Your task to perform on an android device: change notification settings in the gmail app Image 0: 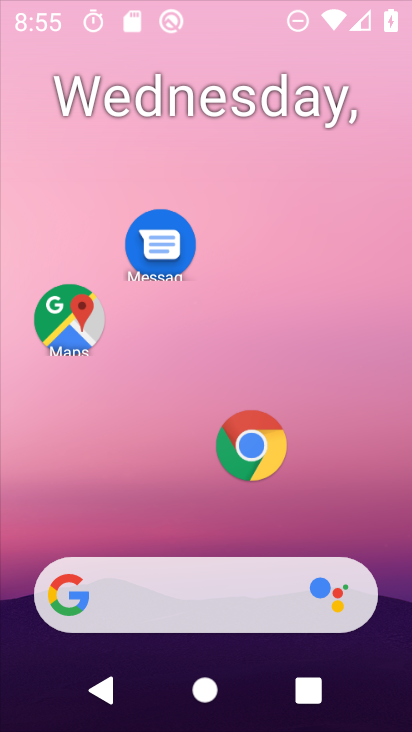
Step 0: press home button
Your task to perform on an android device: change notification settings in the gmail app Image 1: 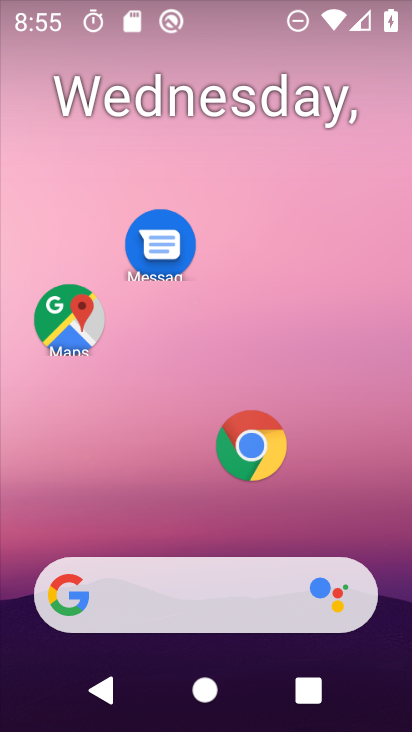
Step 1: drag from (191, 518) to (230, 47)
Your task to perform on an android device: change notification settings in the gmail app Image 2: 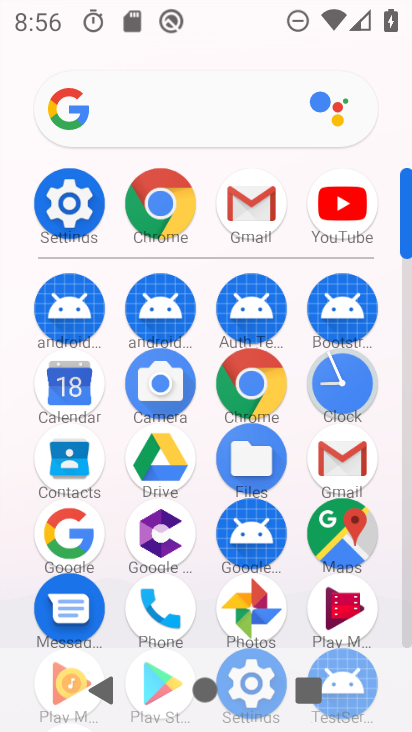
Step 2: click (343, 453)
Your task to perform on an android device: change notification settings in the gmail app Image 3: 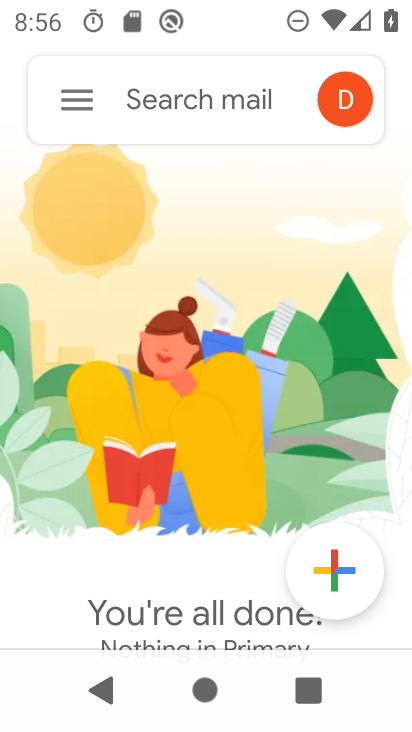
Step 3: click (80, 103)
Your task to perform on an android device: change notification settings in the gmail app Image 4: 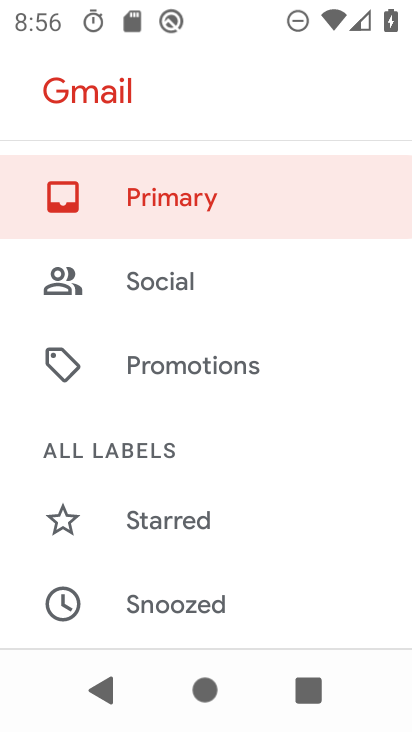
Step 4: drag from (244, 621) to (281, 127)
Your task to perform on an android device: change notification settings in the gmail app Image 5: 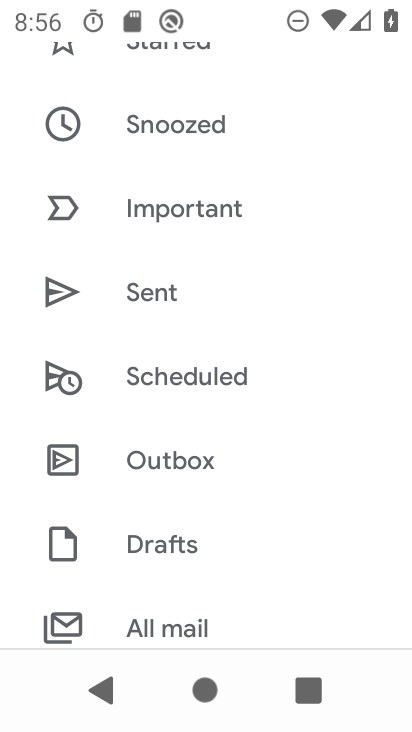
Step 5: drag from (234, 623) to (262, 259)
Your task to perform on an android device: change notification settings in the gmail app Image 6: 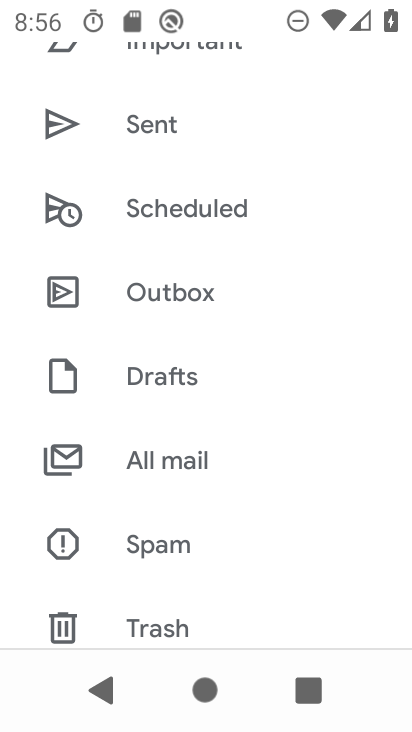
Step 6: click (272, 124)
Your task to perform on an android device: change notification settings in the gmail app Image 7: 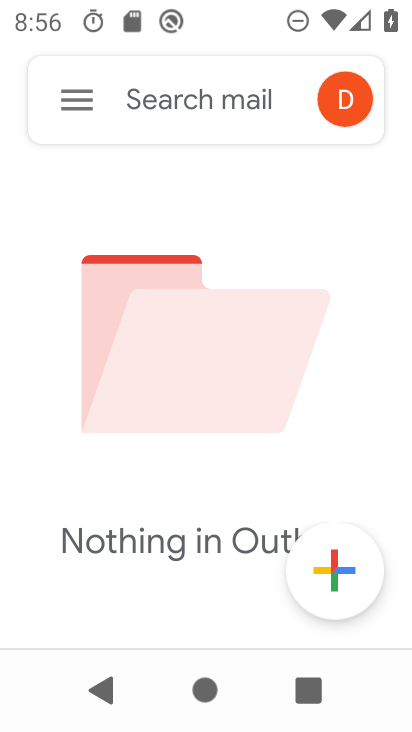
Step 7: click (66, 125)
Your task to perform on an android device: change notification settings in the gmail app Image 8: 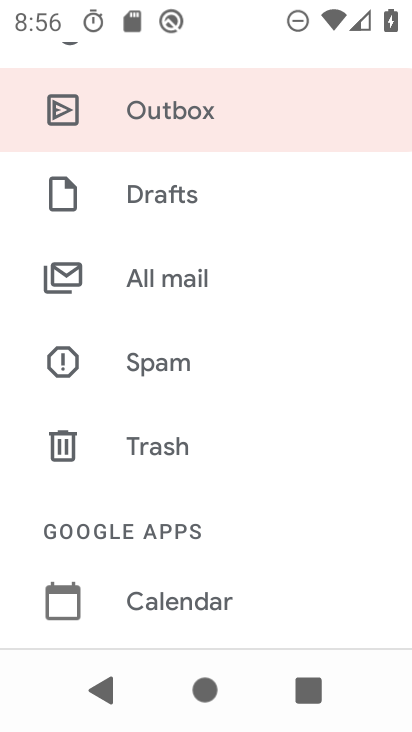
Step 8: drag from (180, 559) to (208, 45)
Your task to perform on an android device: change notification settings in the gmail app Image 9: 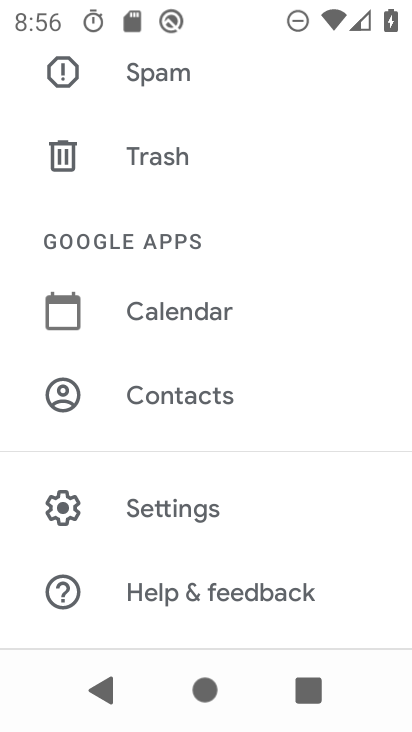
Step 9: click (195, 508)
Your task to perform on an android device: change notification settings in the gmail app Image 10: 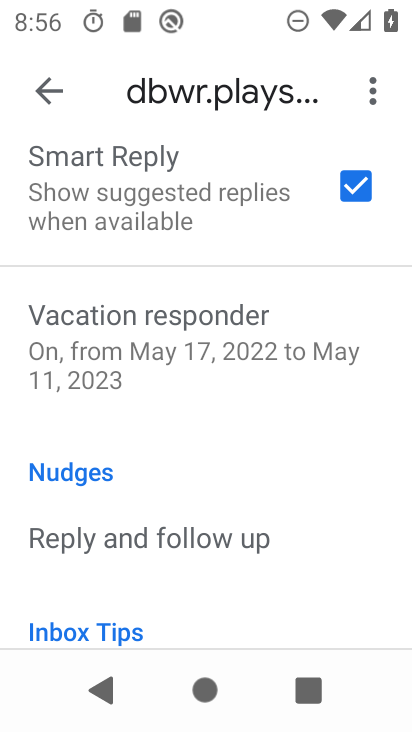
Step 10: click (56, 90)
Your task to perform on an android device: change notification settings in the gmail app Image 11: 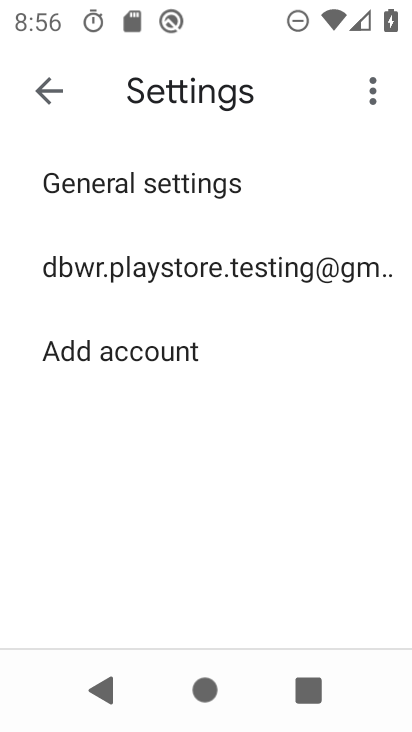
Step 11: click (221, 187)
Your task to perform on an android device: change notification settings in the gmail app Image 12: 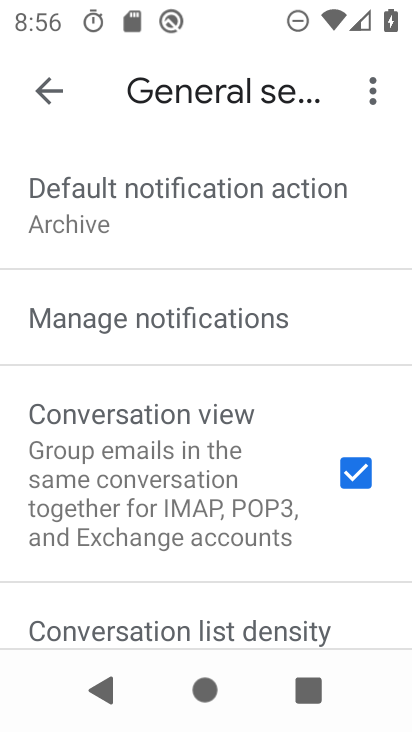
Step 12: click (228, 334)
Your task to perform on an android device: change notification settings in the gmail app Image 13: 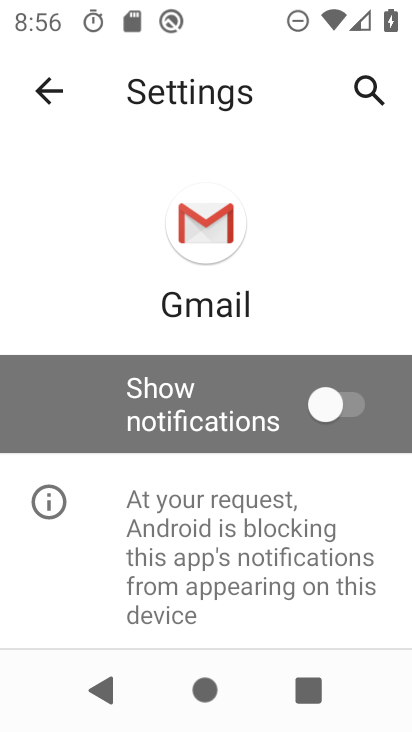
Step 13: click (343, 403)
Your task to perform on an android device: change notification settings in the gmail app Image 14: 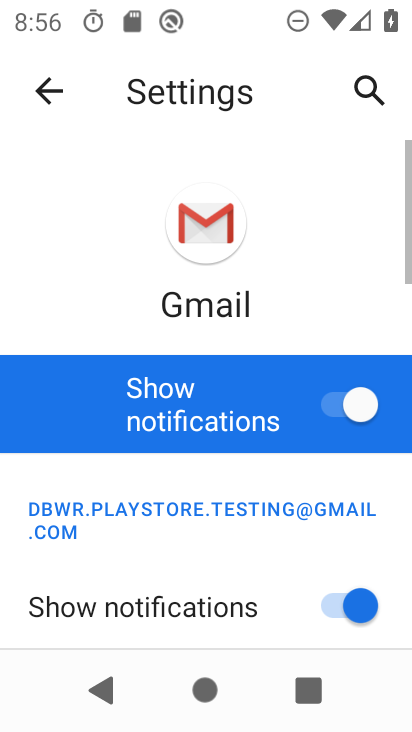
Step 14: task complete